Your task to perform on an android device: Open Google Chrome and open the bookmarks view Image 0: 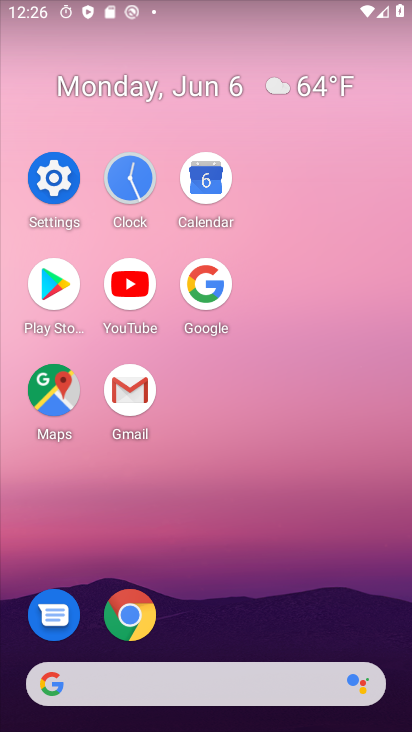
Step 0: click (140, 592)
Your task to perform on an android device: Open Google Chrome and open the bookmarks view Image 1: 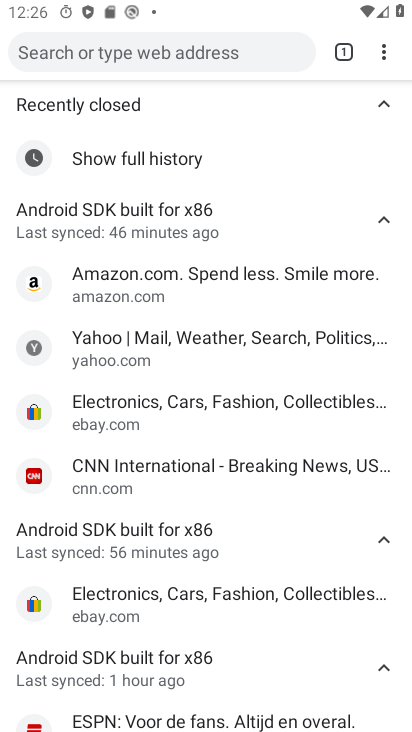
Step 1: click (381, 58)
Your task to perform on an android device: Open Google Chrome and open the bookmarks view Image 2: 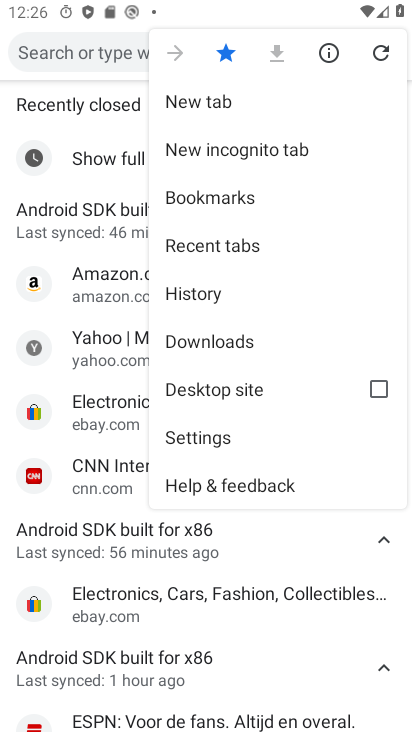
Step 2: click (234, 209)
Your task to perform on an android device: Open Google Chrome and open the bookmarks view Image 3: 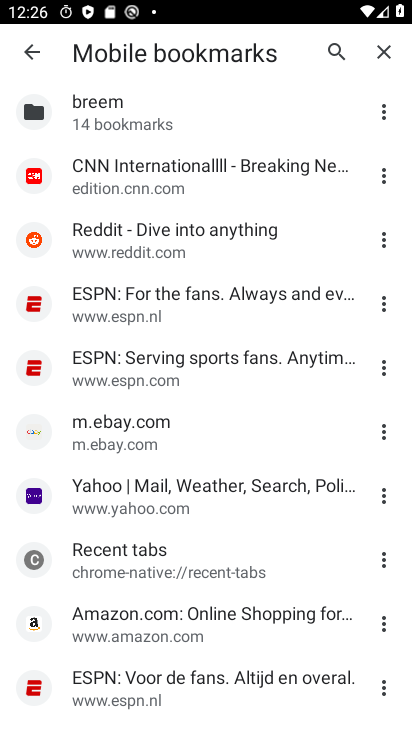
Step 3: click (180, 189)
Your task to perform on an android device: Open Google Chrome and open the bookmarks view Image 4: 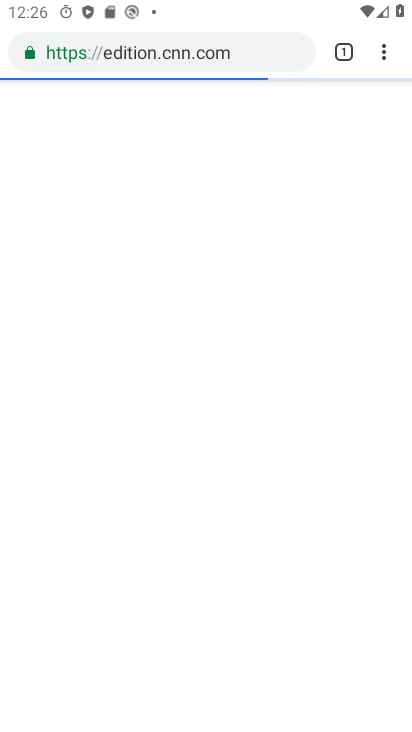
Step 4: task complete